Your task to perform on an android device: Open Google Chrome and click the shortcut for Amazon.com Image 0: 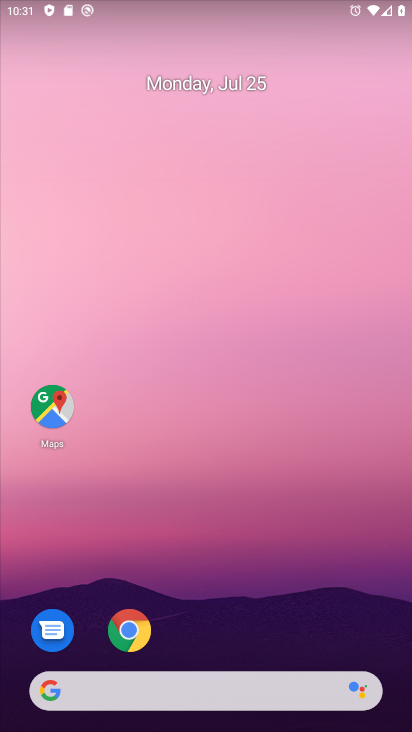
Step 0: click (128, 640)
Your task to perform on an android device: Open Google Chrome and click the shortcut for Amazon.com Image 1: 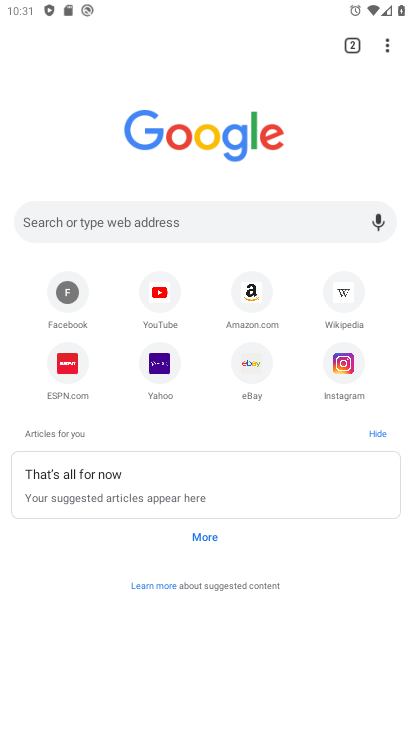
Step 1: click (250, 296)
Your task to perform on an android device: Open Google Chrome and click the shortcut for Amazon.com Image 2: 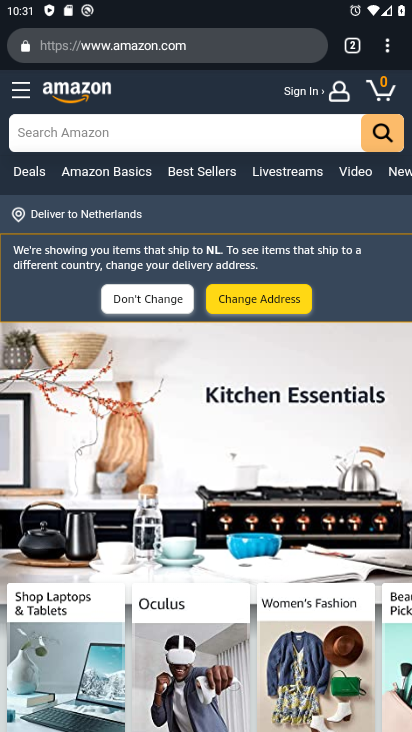
Step 2: task complete